Your task to perform on an android device: allow notifications from all sites in the chrome app Image 0: 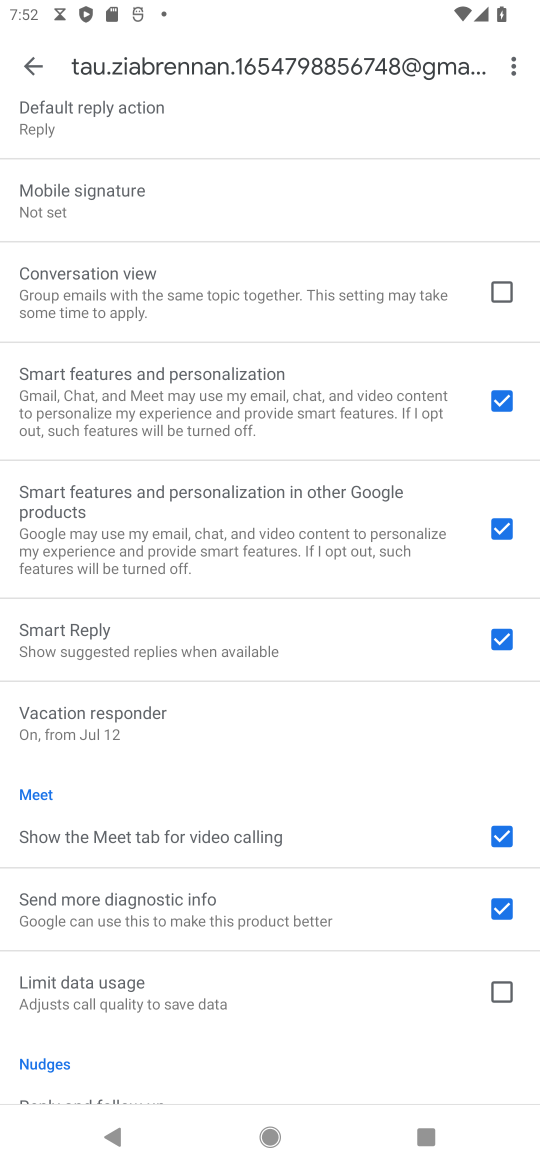
Step 0: press home button
Your task to perform on an android device: allow notifications from all sites in the chrome app Image 1: 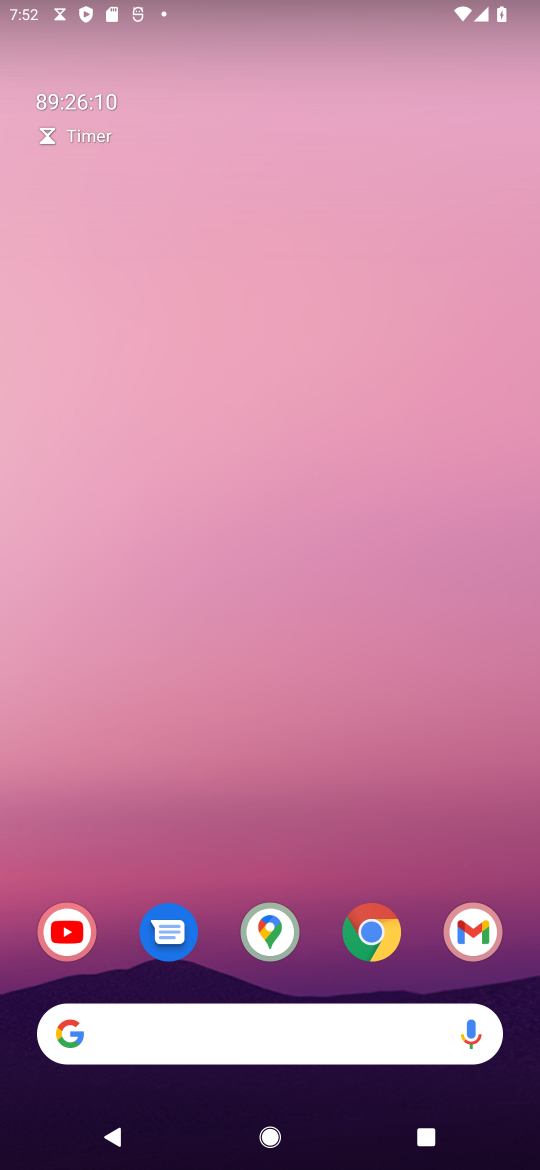
Step 1: click (368, 939)
Your task to perform on an android device: allow notifications from all sites in the chrome app Image 2: 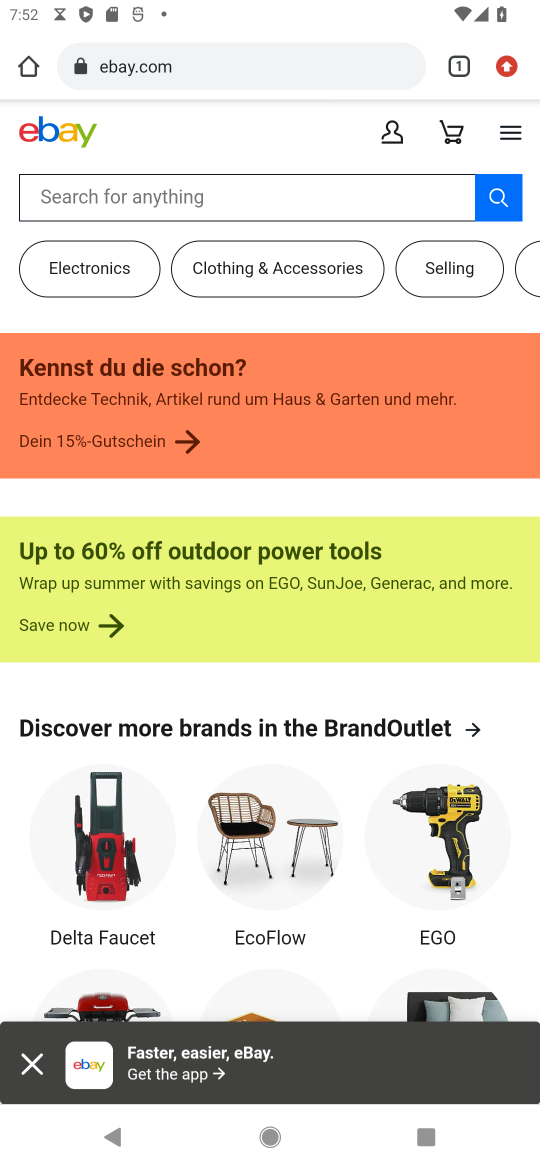
Step 2: click (500, 70)
Your task to perform on an android device: allow notifications from all sites in the chrome app Image 3: 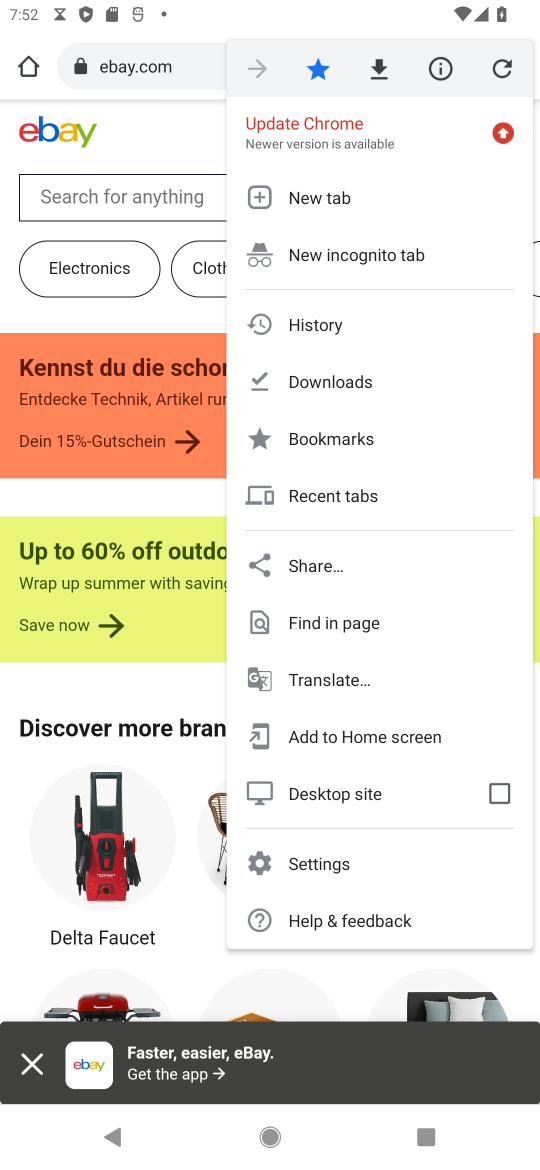
Step 3: click (342, 862)
Your task to perform on an android device: allow notifications from all sites in the chrome app Image 4: 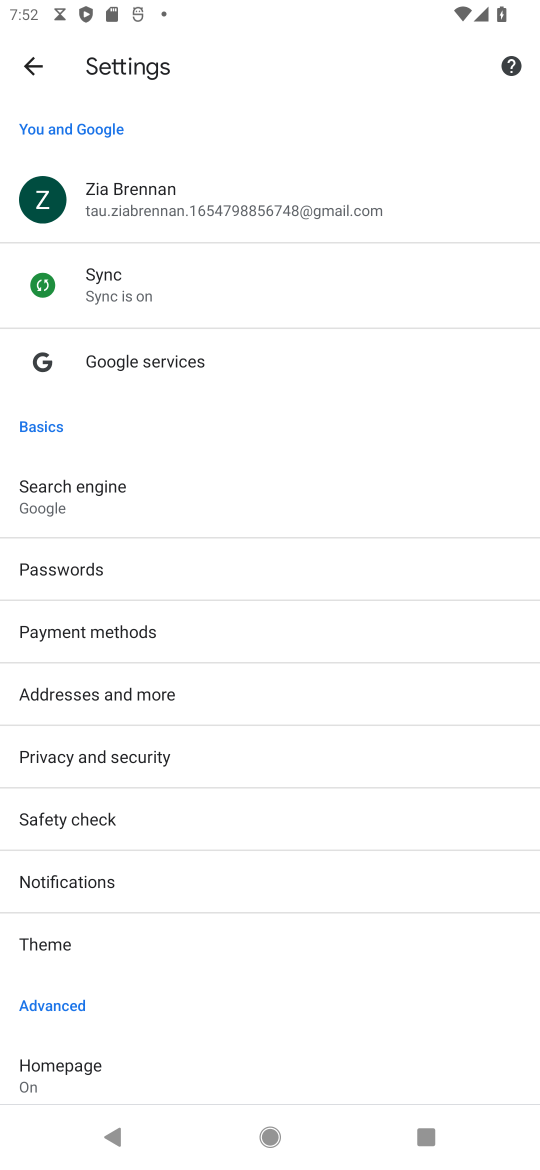
Step 4: click (116, 891)
Your task to perform on an android device: allow notifications from all sites in the chrome app Image 5: 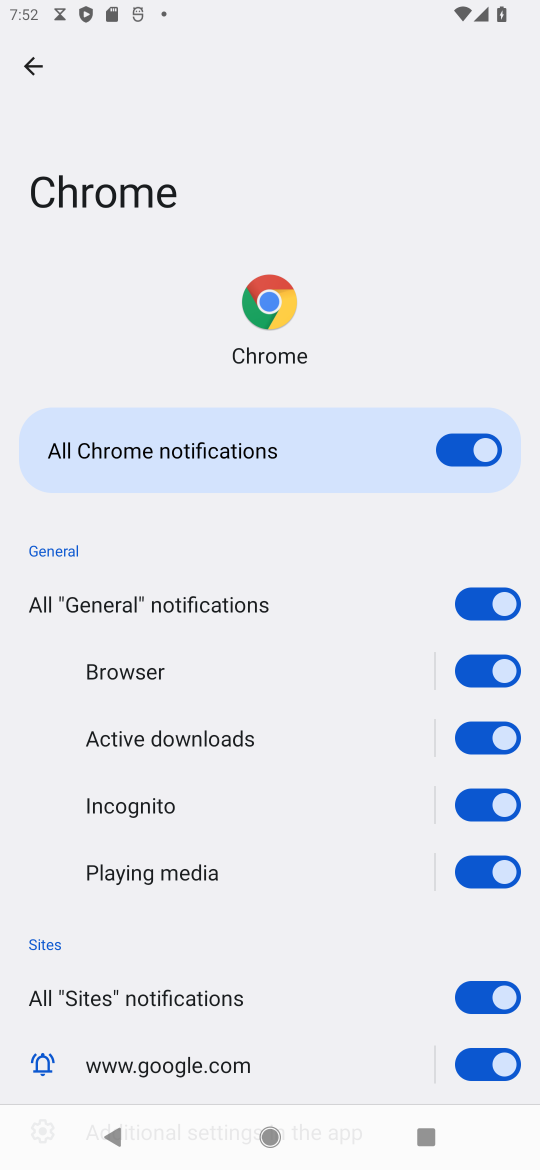
Step 5: task complete